Your task to perform on an android device: open app "Pinterest" Image 0: 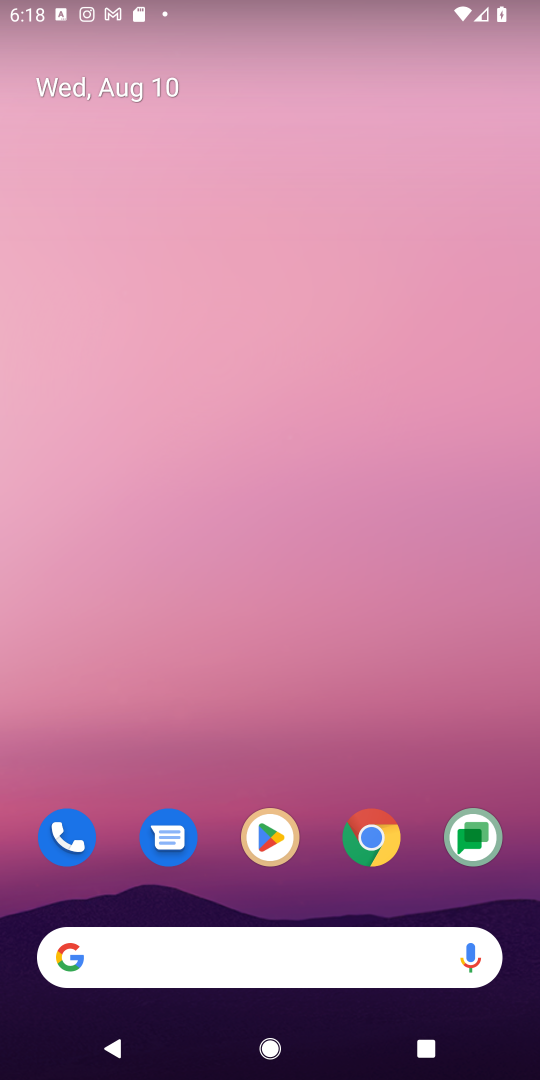
Step 0: press home button
Your task to perform on an android device: open app "Pinterest" Image 1: 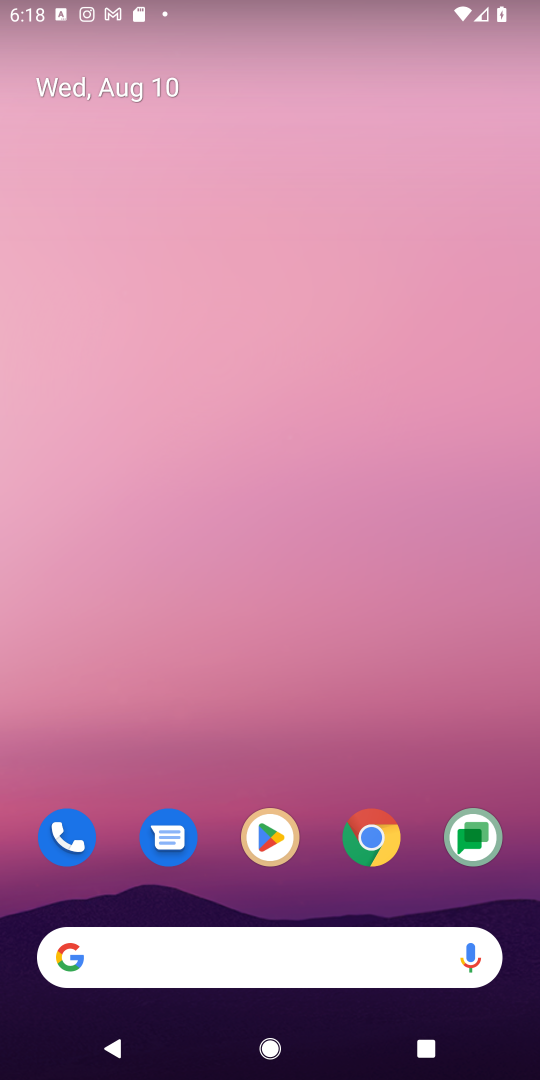
Step 1: click (271, 838)
Your task to perform on an android device: open app "Pinterest" Image 2: 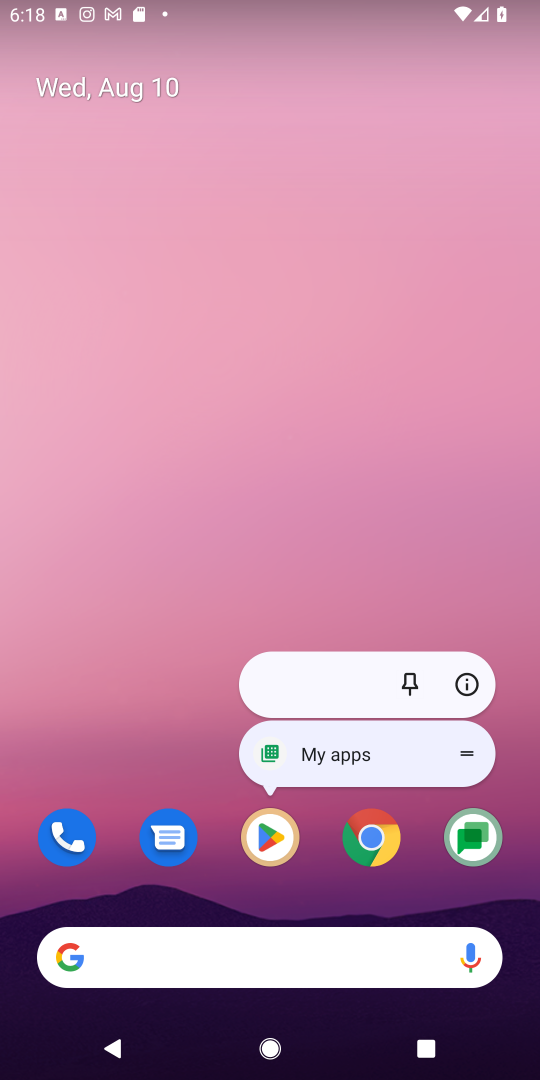
Step 2: click (274, 850)
Your task to perform on an android device: open app "Pinterest" Image 3: 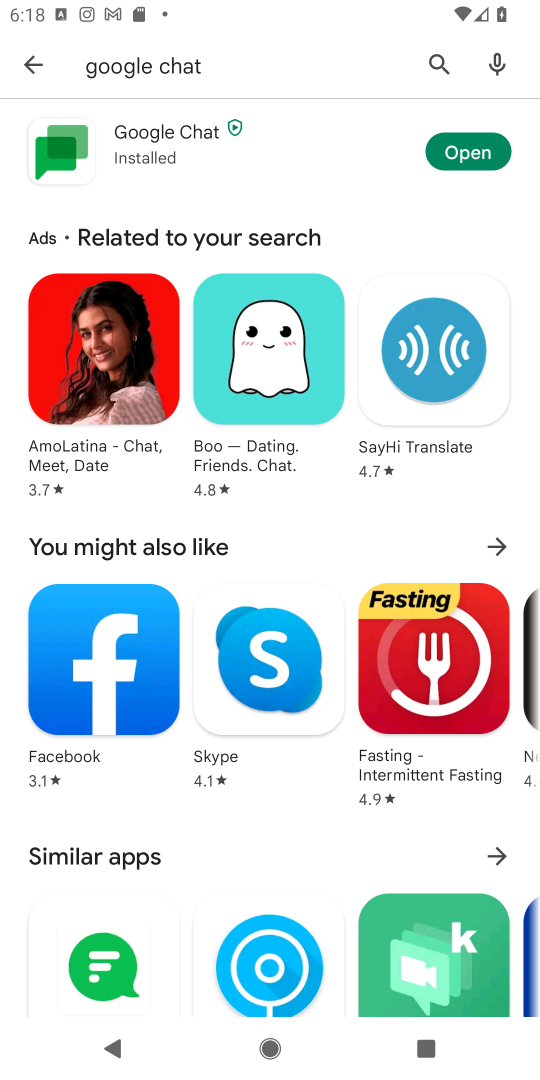
Step 3: click (432, 53)
Your task to perform on an android device: open app "Pinterest" Image 4: 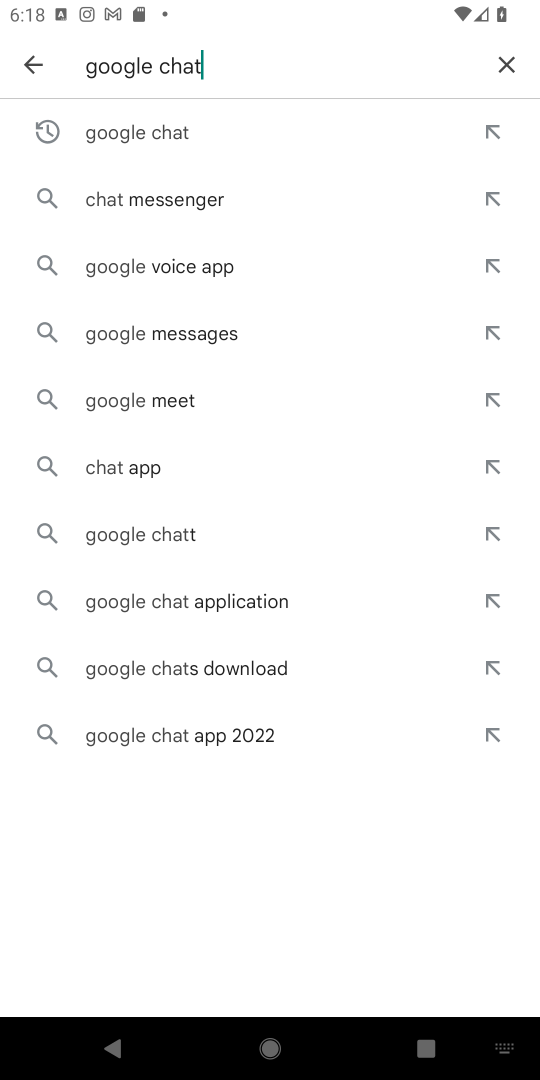
Step 4: click (502, 55)
Your task to perform on an android device: open app "Pinterest" Image 5: 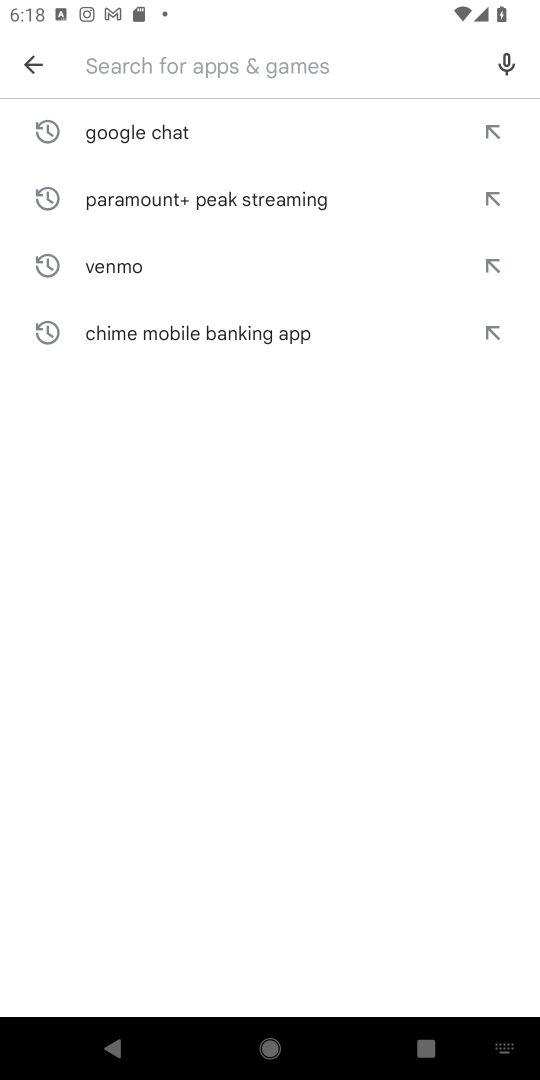
Step 5: type "Pinterest"
Your task to perform on an android device: open app "Pinterest" Image 6: 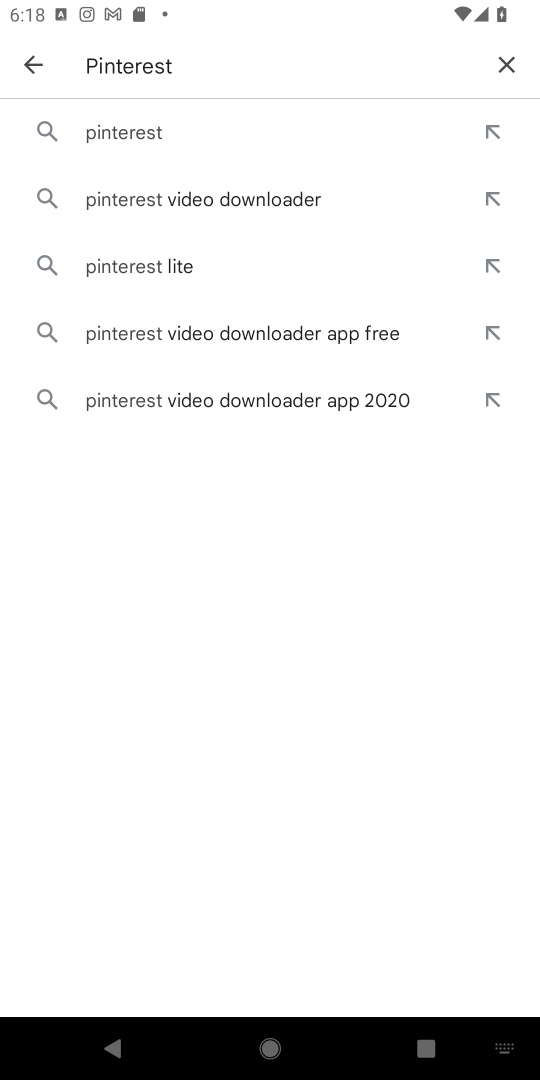
Step 6: click (147, 127)
Your task to perform on an android device: open app "Pinterest" Image 7: 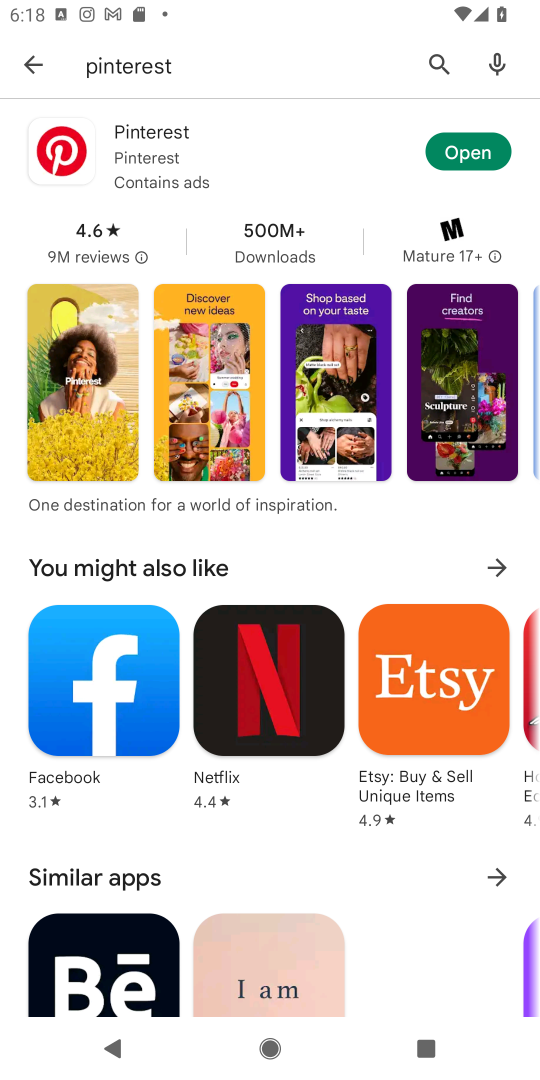
Step 7: click (452, 146)
Your task to perform on an android device: open app "Pinterest" Image 8: 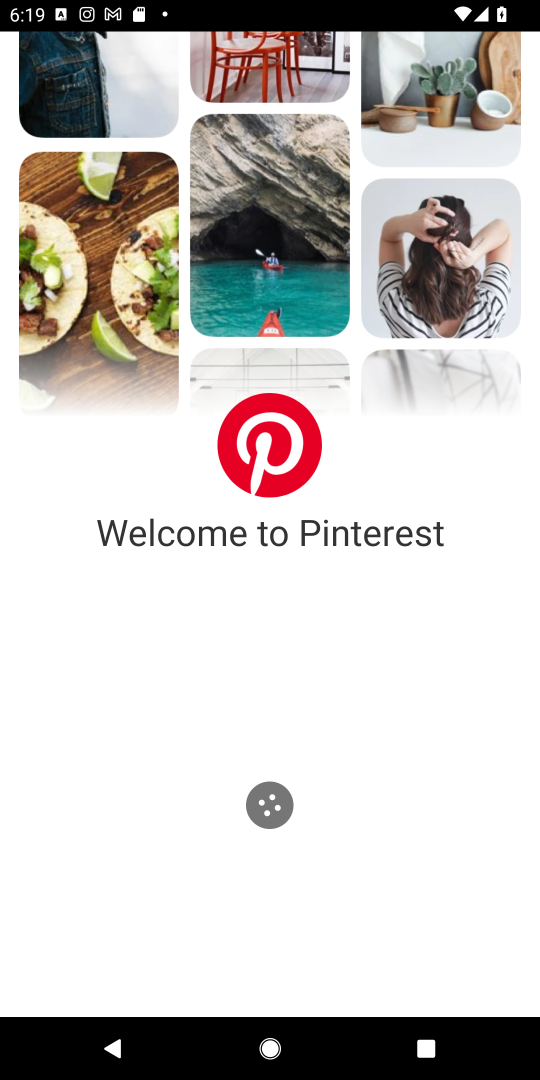
Step 8: task complete